Your task to perform on an android device: Open sound settings Image 0: 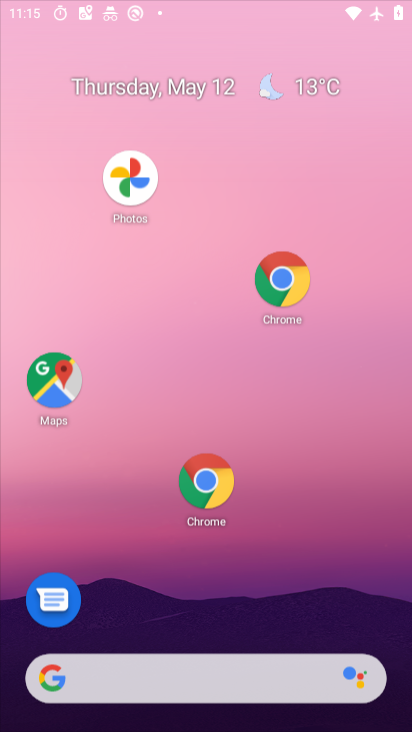
Step 0: drag from (307, 615) to (151, 19)
Your task to perform on an android device: Open sound settings Image 1: 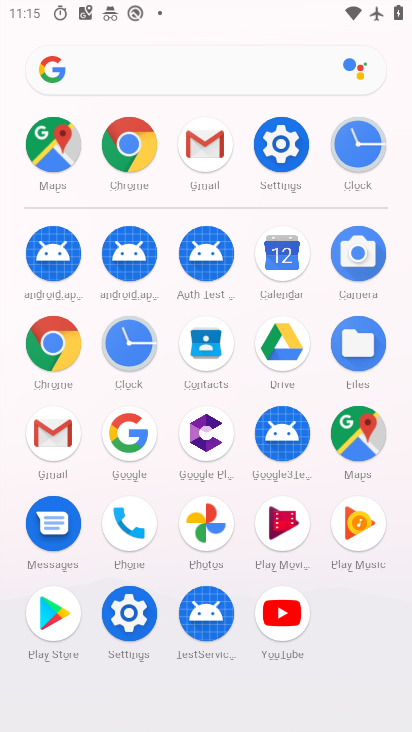
Step 1: click (124, 604)
Your task to perform on an android device: Open sound settings Image 2: 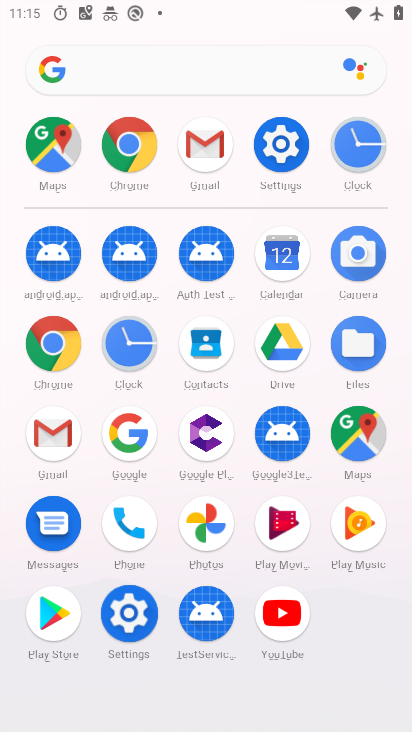
Step 2: click (124, 604)
Your task to perform on an android device: Open sound settings Image 3: 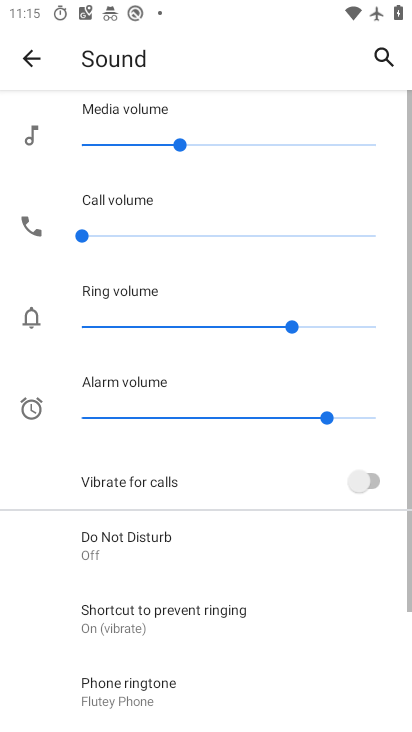
Step 3: click (26, 58)
Your task to perform on an android device: Open sound settings Image 4: 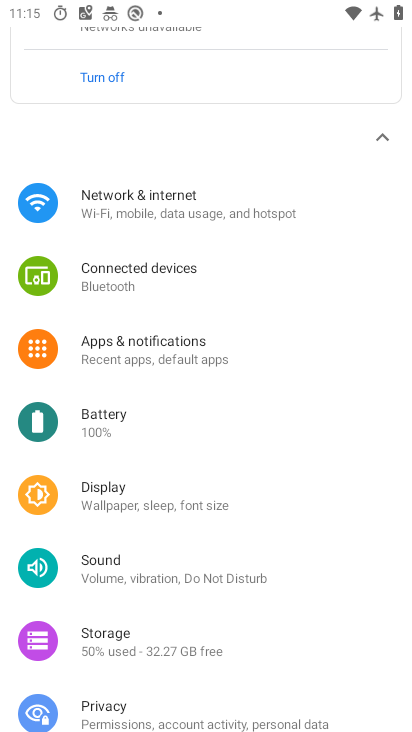
Step 4: drag from (118, 533) to (66, 243)
Your task to perform on an android device: Open sound settings Image 5: 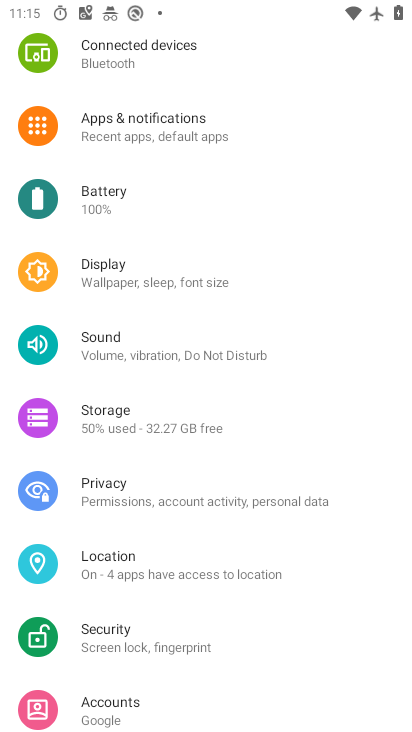
Step 5: click (109, 346)
Your task to perform on an android device: Open sound settings Image 6: 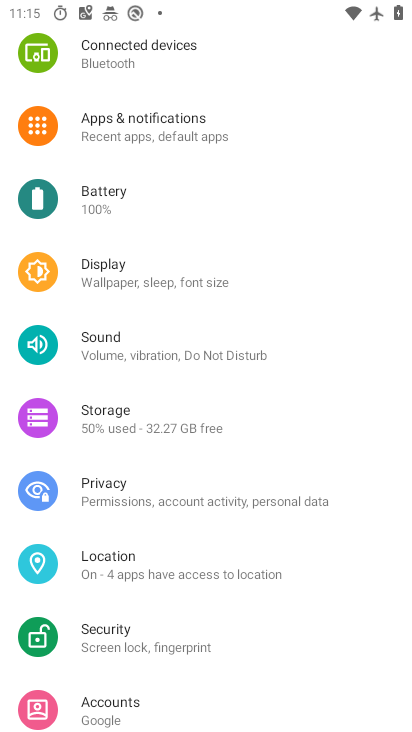
Step 6: click (106, 346)
Your task to perform on an android device: Open sound settings Image 7: 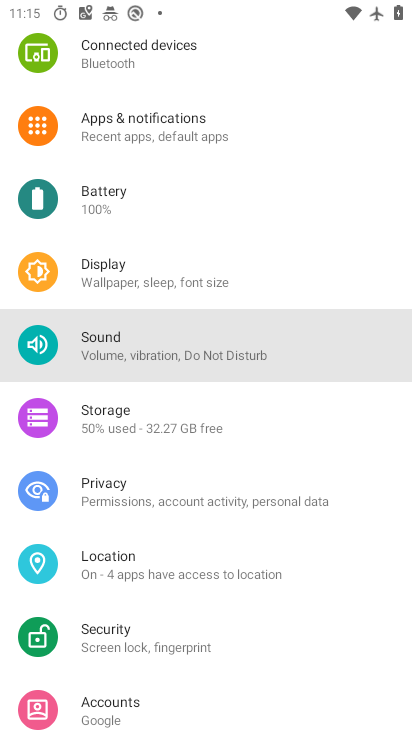
Step 7: click (105, 345)
Your task to perform on an android device: Open sound settings Image 8: 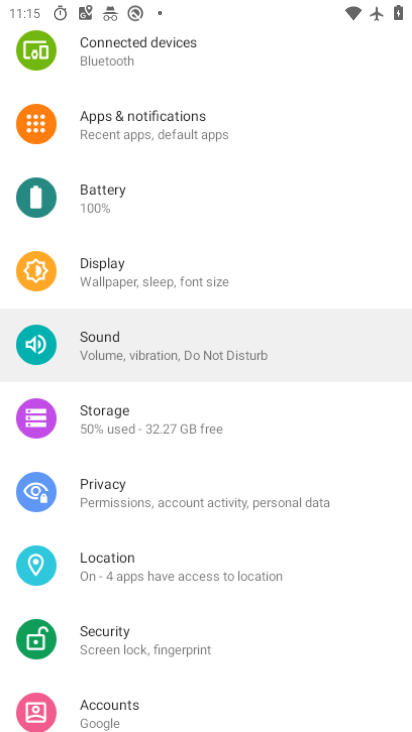
Step 8: click (105, 345)
Your task to perform on an android device: Open sound settings Image 9: 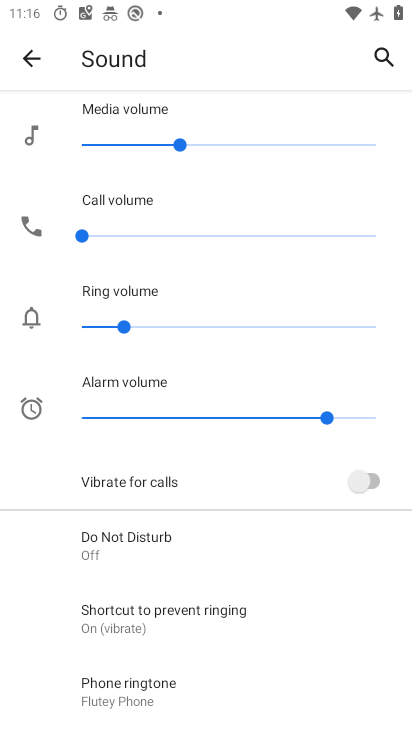
Step 9: task complete